Your task to perform on an android device: check the backup settings in the google photos Image 0: 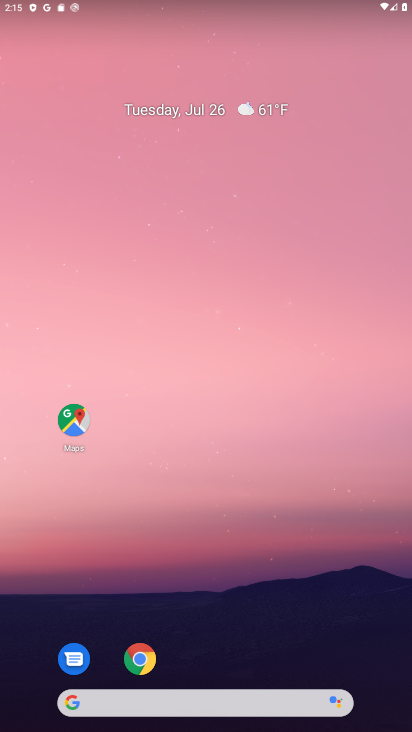
Step 0: drag from (371, 589) to (297, 195)
Your task to perform on an android device: check the backup settings in the google photos Image 1: 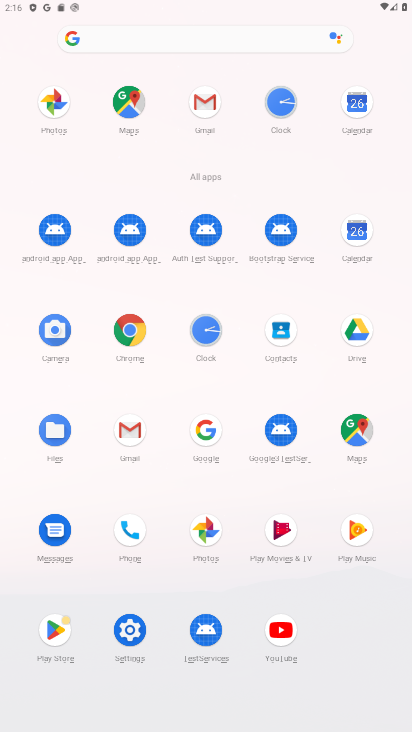
Step 1: click (198, 526)
Your task to perform on an android device: check the backup settings in the google photos Image 2: 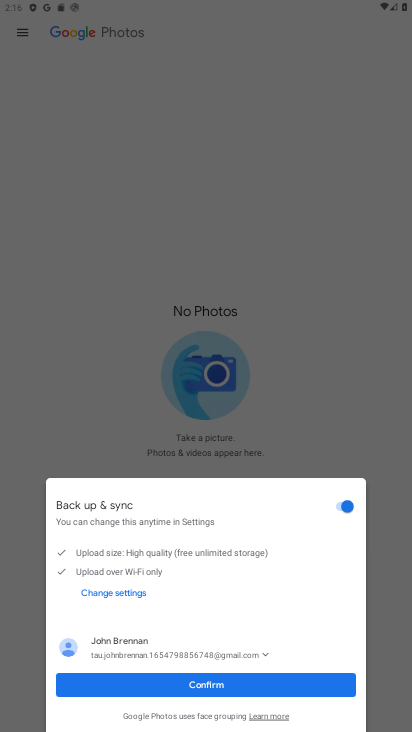
Step 2: task complete